Your task to perform on an android device: Search for pizza restaurants on Maps Image 0: 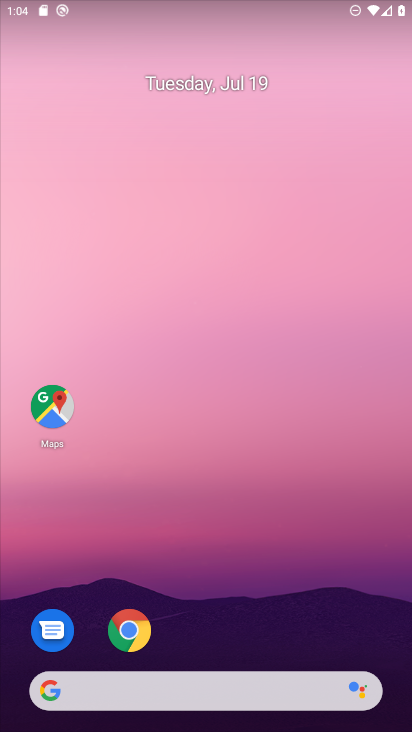
Step 0: press home button
Your task to perform on an android device: Search for pizza restaurants on Maps Image 1: 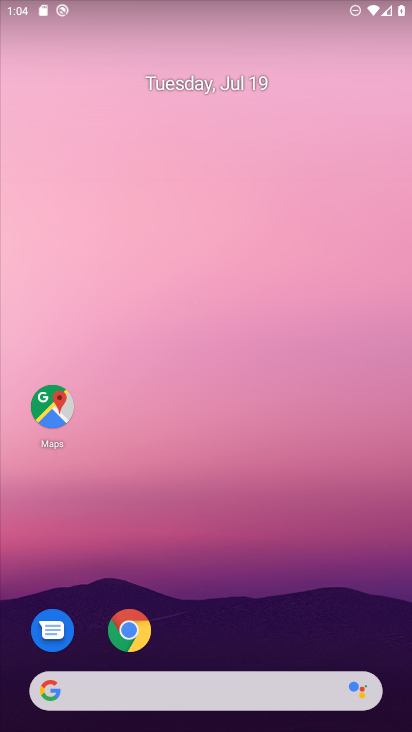
Step 1: click (52, 410)
Your task to perform on an android device: Search for pizza restaurants on Maps Image 2: 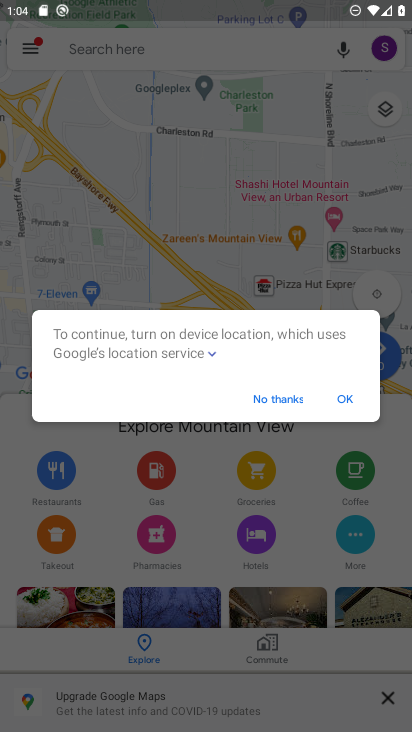
Step 2: click (350, 402)
Your task to perform on an android device: Search for pizza restaurants on Maps Image 3: 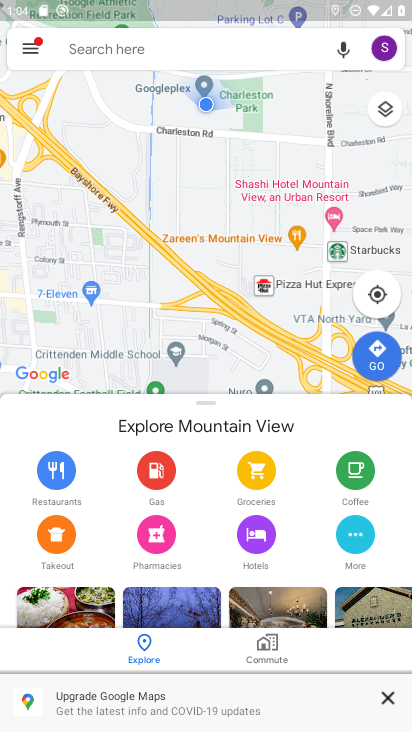
Step 3: click (181, 47)
Your task to perform on an android device: Search for pizza restaurants on Maps Image 4: 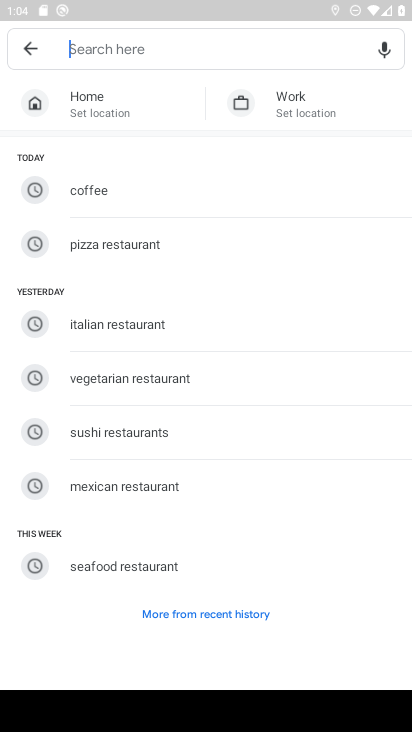
Step 4: click (133, 243)
Your task to perform on an android device: Search for pizza restaurants on Maps Image 5: 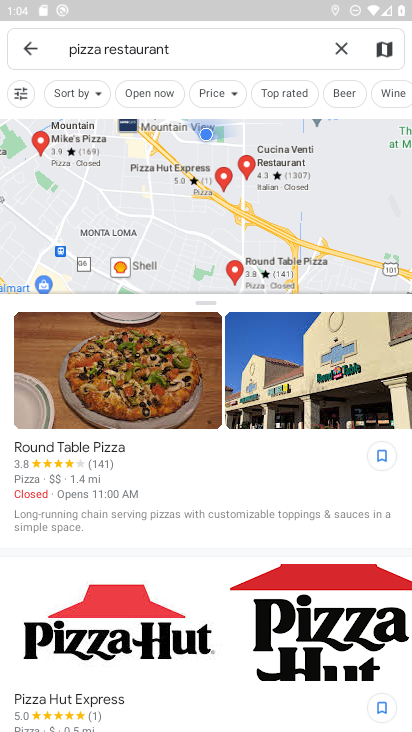
Step 5: task complete